Your task to perform on an android device: find which apps use the phone's location Image 0: 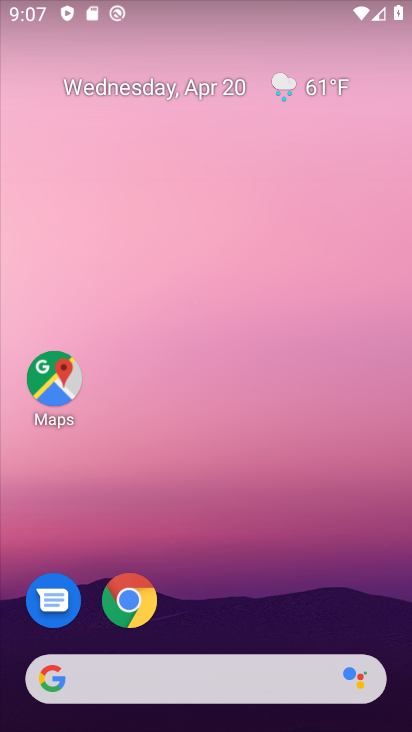
Step 0: drag from (228, 625) to (370, 15)
Your task to perform on an android device: find which apps use the phone's location Image 1: 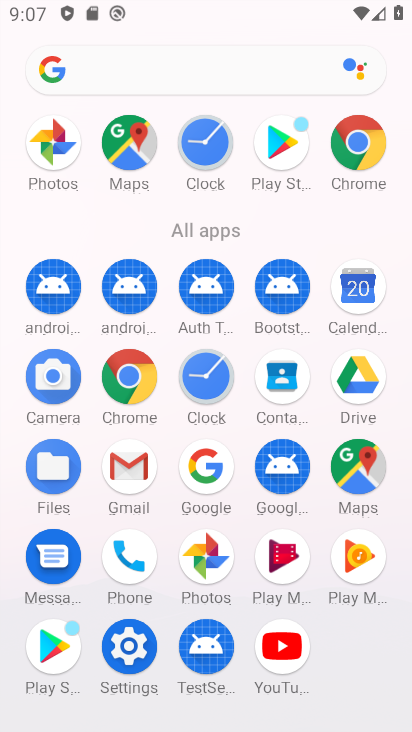
Step 1: click (140, 651)
Your task to perform on an android device: find which apps use the phone's location Image 2: 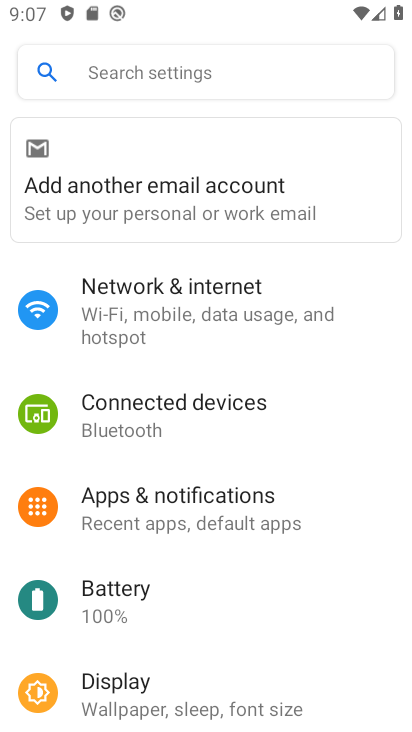
Step 2: drag from (140, 651) to (153, 196)
Your task to perform on an android device: find which apps use the phone's location Image 3: 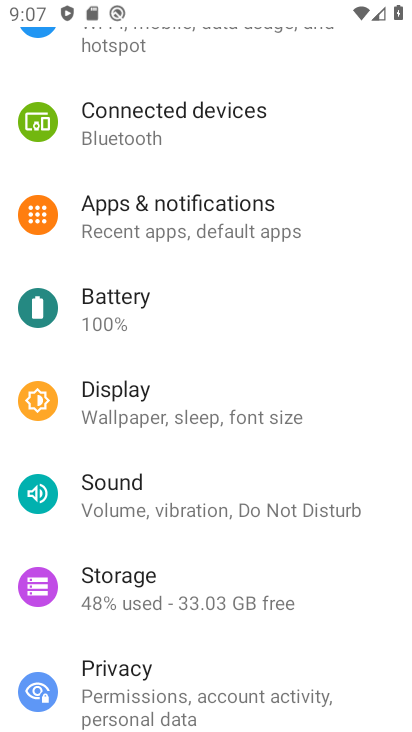
Step 3: drag from (88, 605) to (70, 126)
Your task to perform on an android device: find which apps use the phone's location Image 4: 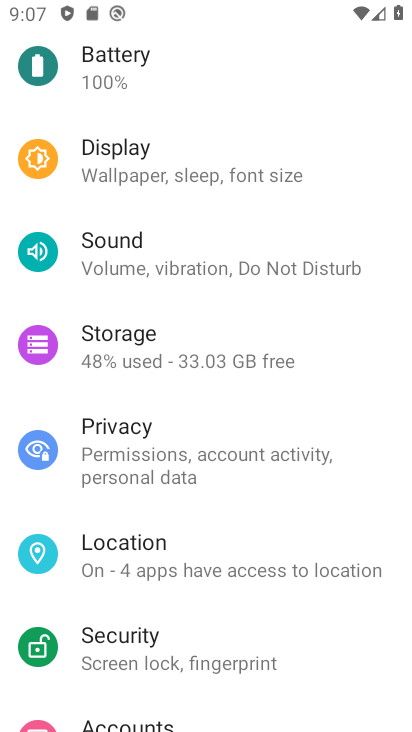
Step 4: click (170, 561)
Your task to perform on an android device: find which apps use the phone's location Image 5: 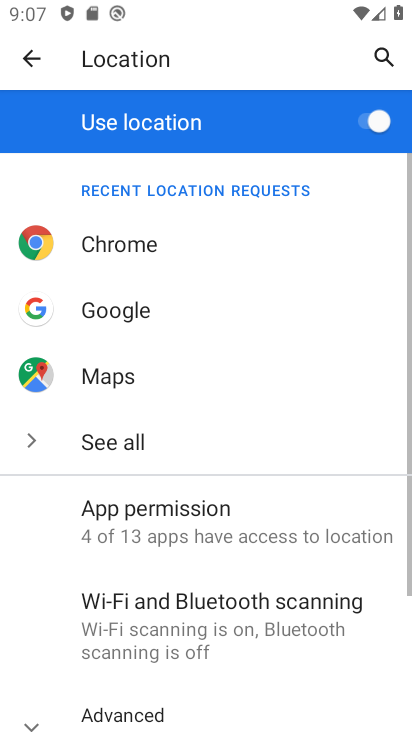
Step 5: click (135, 453)
Your task to perform on an android device: find which apps use the phone's location Image 6: 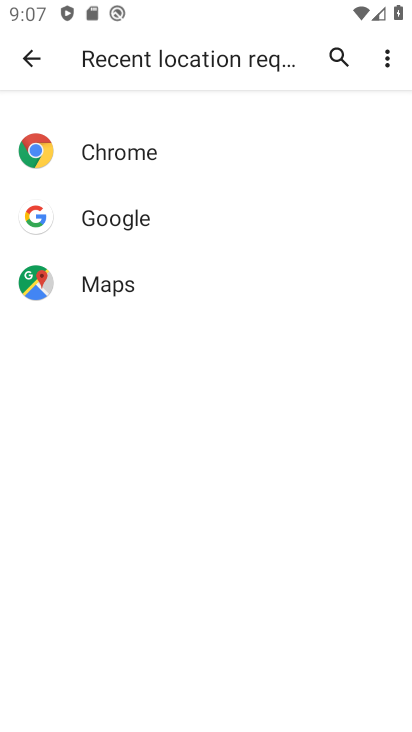
Step 6: task complete